Your task to perform on an android device: find snoozed emails in the gmail app Image 0: 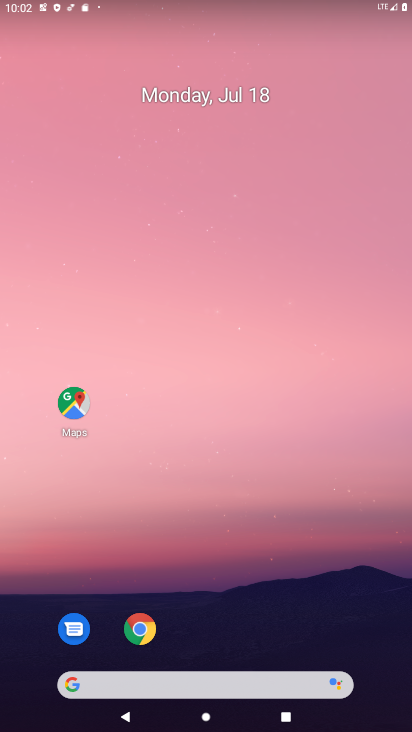
Step 0: drag from (230, 686) to (153, 124)
Your task to perform on an android device: find snoozed emails in the gmail app Image 1: 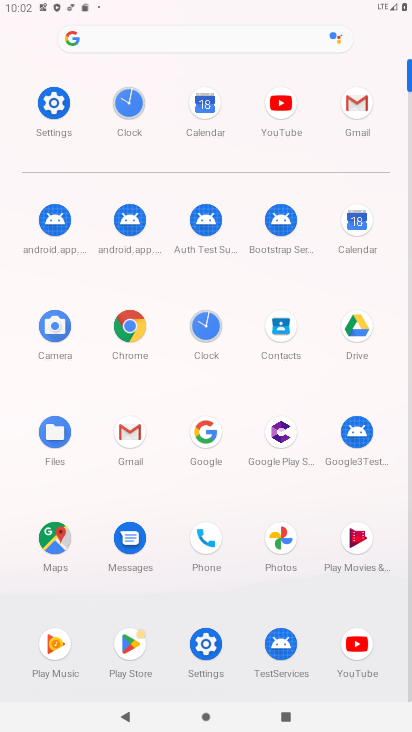
Step 1: click (126, 431)
Your task to perform on an android device: find snoozed emails in the gmail app Image 2: 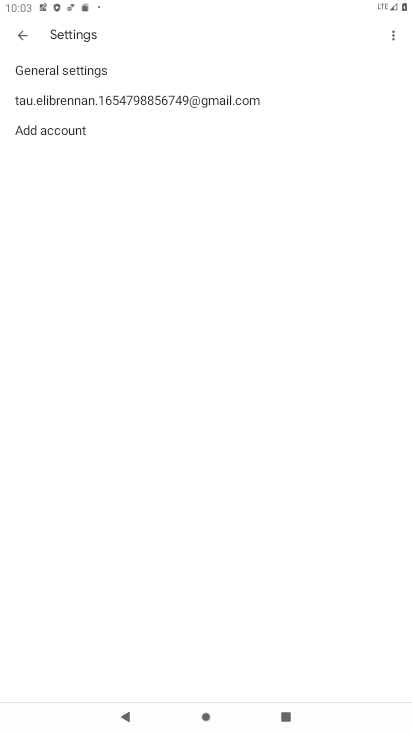
Step 2: click (22, 35)
Your task to perform on an android device: find snoozed emails in the gmail app Image 3: 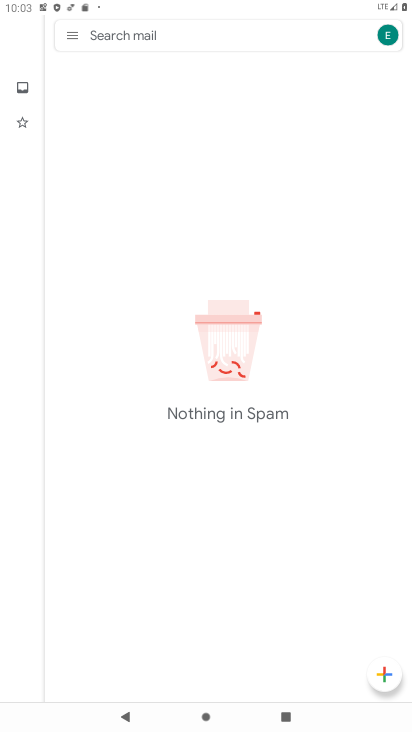
Step 3: click (75, 32)
Your task to perform on an android device: find snoozed emails in the gmail app Image 4: 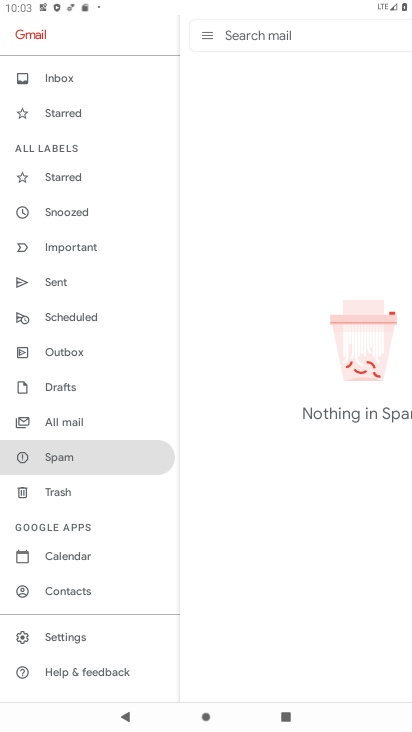
Step 4: click (69, 205)
Your task to perform on an android device: find snoozed emails in the gmail app Image 5: 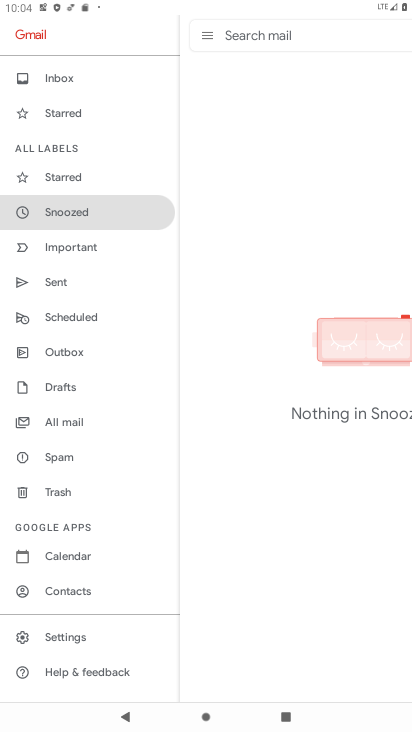
Step 5: task complete